Your task to perform on an android device: stop showing notifications on the lock screen Image 0: 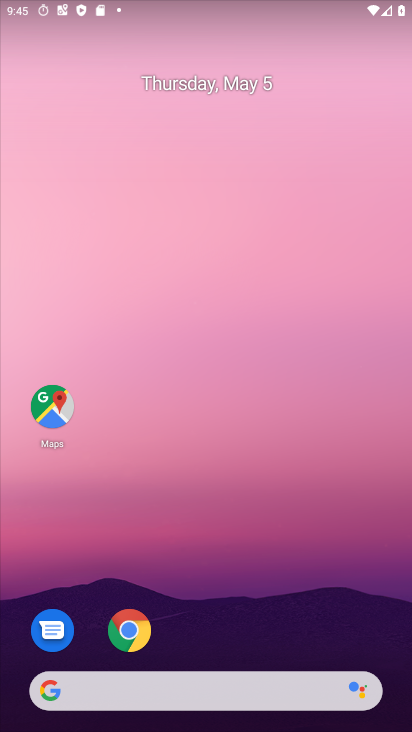
Step 0: drag from (231, 633) to (68, 129)
Your task to perform on an android device: stop showing notifications on the lock screen Image 1: 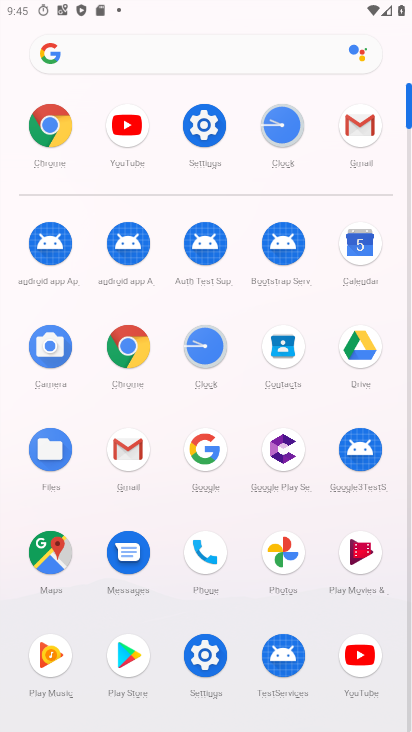
Step 1: click (211, 655)
Your task to perform on an android device: stop showing notifications on the lock screen Image 2: 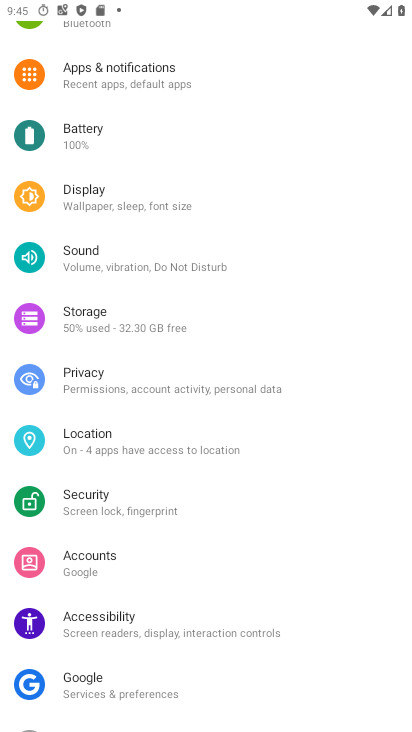
Step 2: click (123, 79)
Your task to perform on an android device: stop showing notifications on the lock screen Image 3: 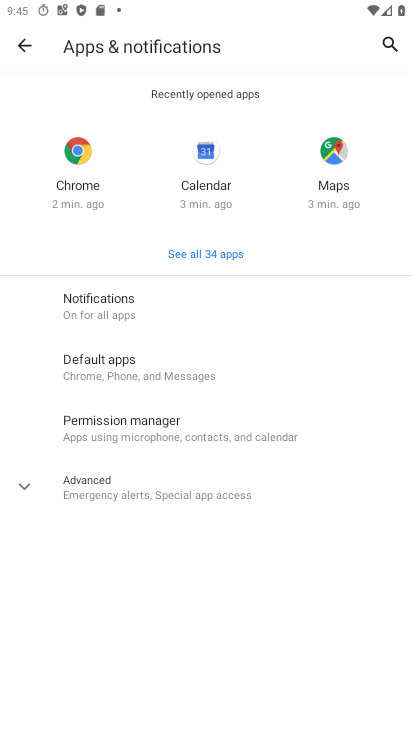
Step 3: click (179, 310)
Your task to perform on an android device: stop showing notifications on the lock screen Image 4: 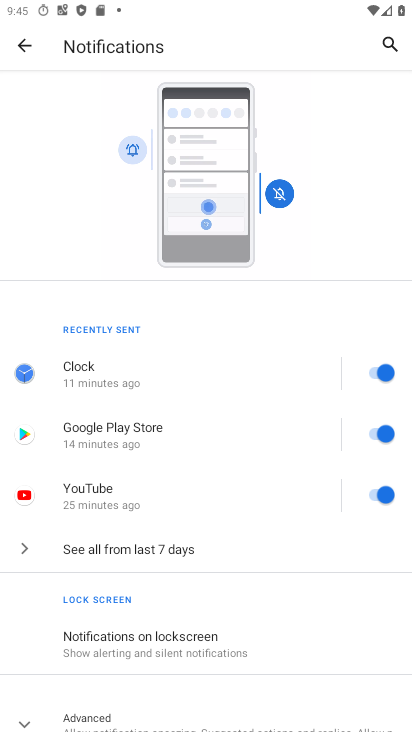
Step 4: click (176, 648)
Your task to perform on an android device: stop showing notifications on the lock screen Image 5: 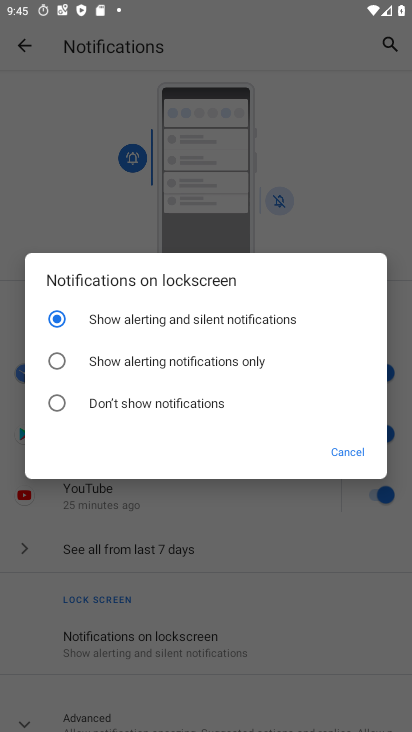
Step 5: click (174, 402)
Your task to perform on an android device: stop showing notifications on the lock screen Image 6: 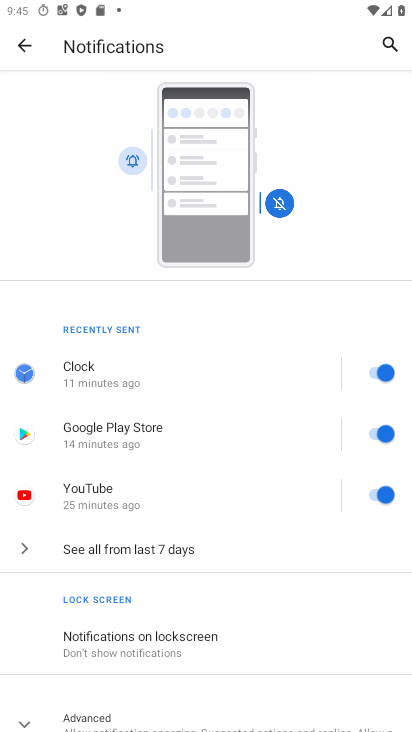
Step 6: task complete